Your task to perform on an android device: set default search engine in the chrome app Image 0: 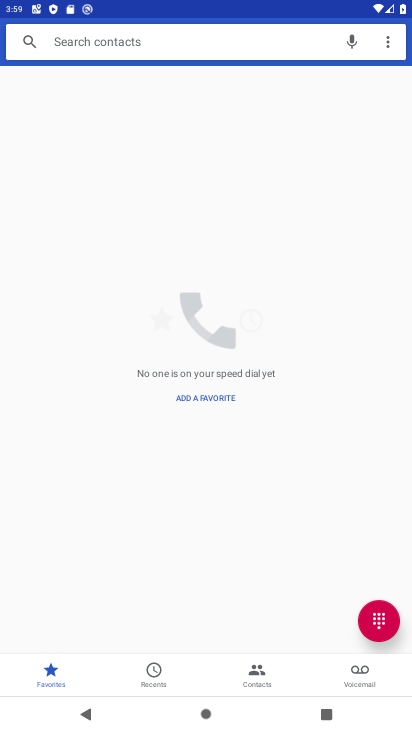
Step 0: press home button
Your task to perform on an android device: set default search engine in the chrome app Image 1: 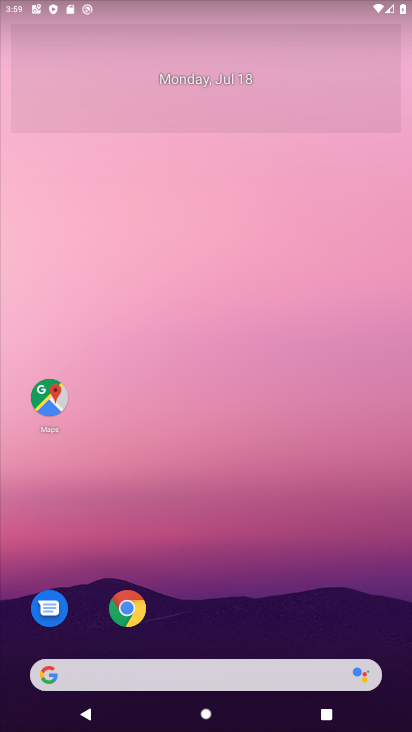
Step 1: drag from (214, 506) to (202, 250)
Your task to perform on an android device: set default search engine in the chrome app Image 2: 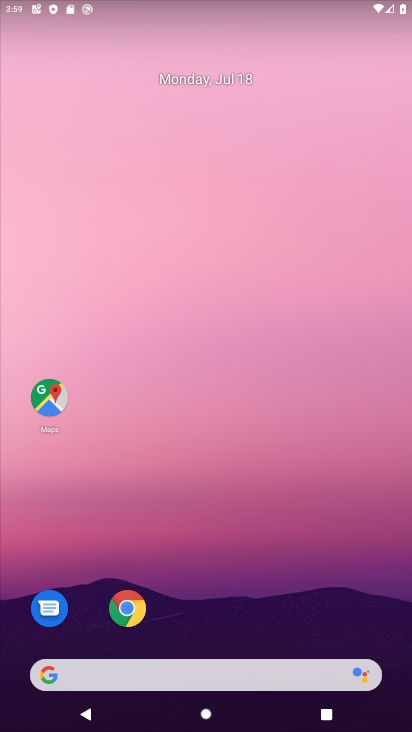
Step 2: drag from (253, 620) to (276, 188)
Your task to perform on an android device: set default search engine in the chrome app Image 3: 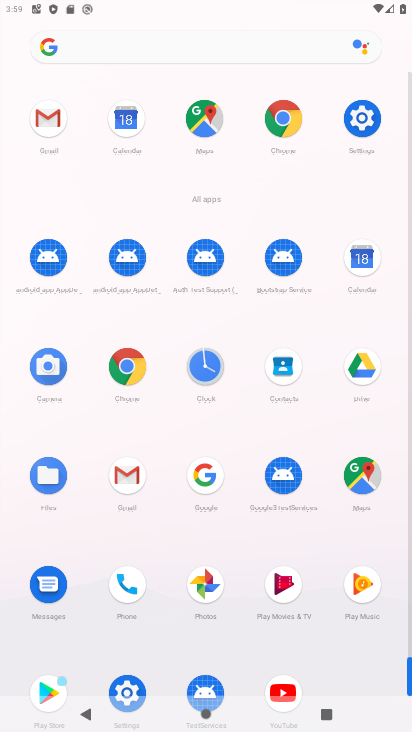
Step 3: click (122, 366)
Your task to perform on an android device: set default search engine in the chrome app Image 4: 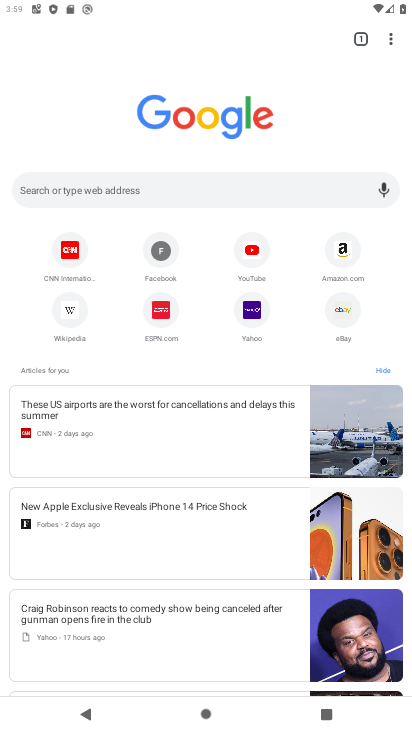
Step 4: click (391, 41)
Your task to perform on an android device: set default search engine in the chrome app Image 5: 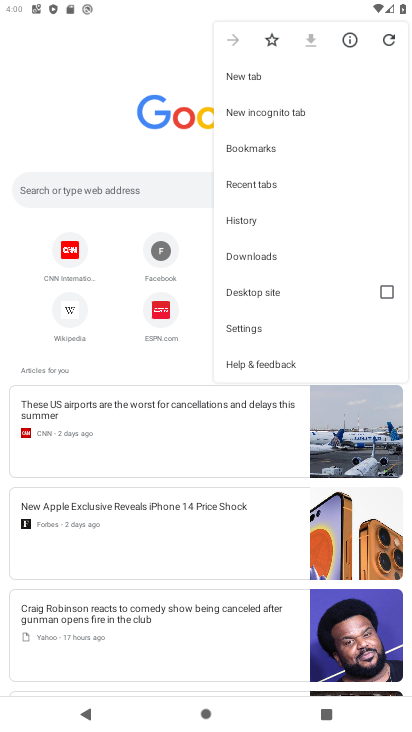
Step 5: click (281, 333)
Your task to perform on an android device: set default search engine in the chrome app Image 6: 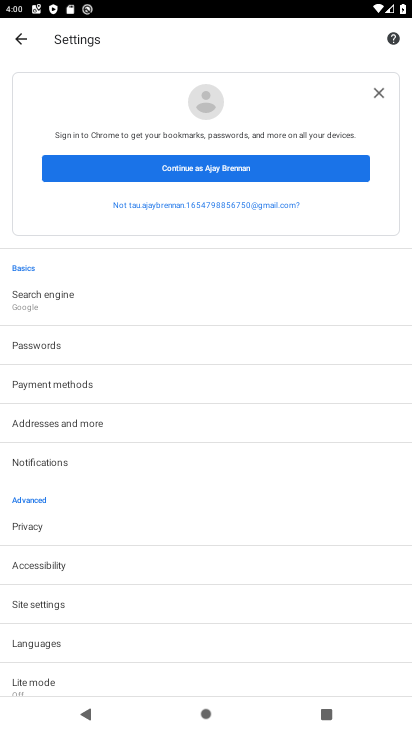
Step 6: click (70, 300)
Your task to perform on an android device: set default search engine in the chrome app Image 7: 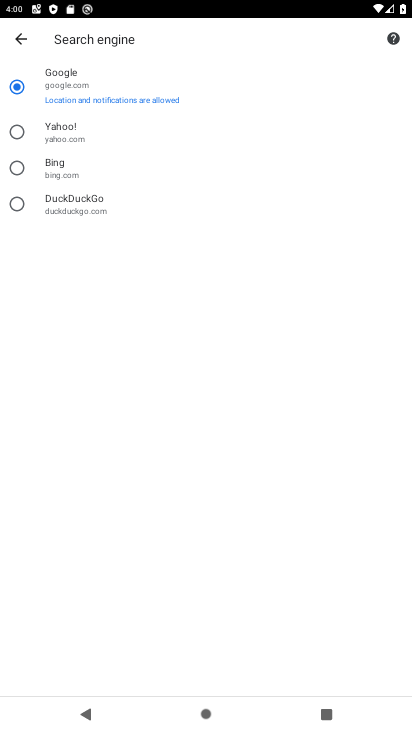
Step 7: task complete